Your task to perform on an android device: show emergency info Image 0: 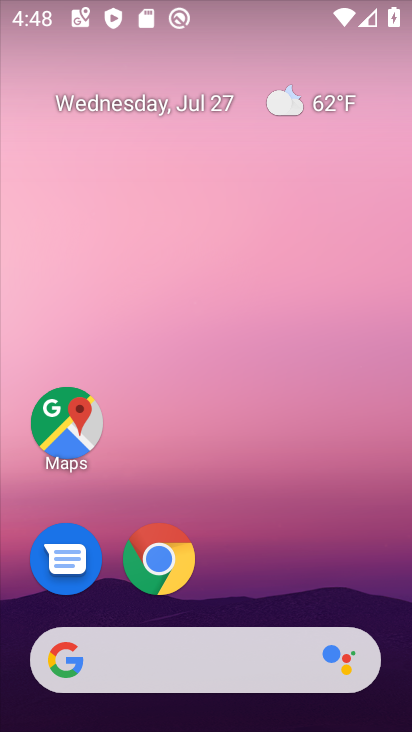
Step 0: drag from (300, 400) to (291, 3)
Your task to perform on an android device: show emergency info Image 1: 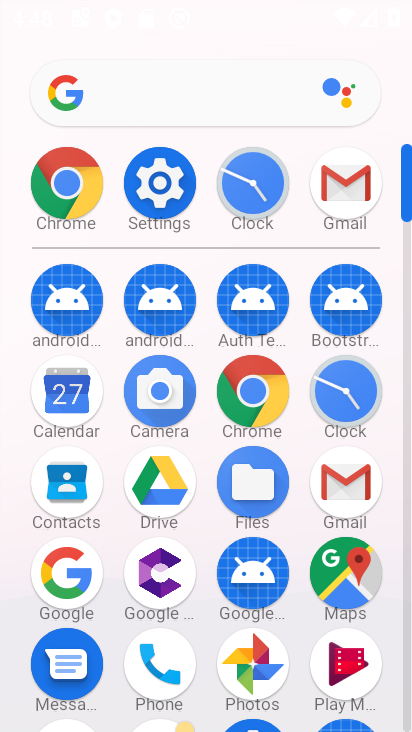
Step 1: click (159, 188)
Your task to perform on an android device: show emergency info Image 2: 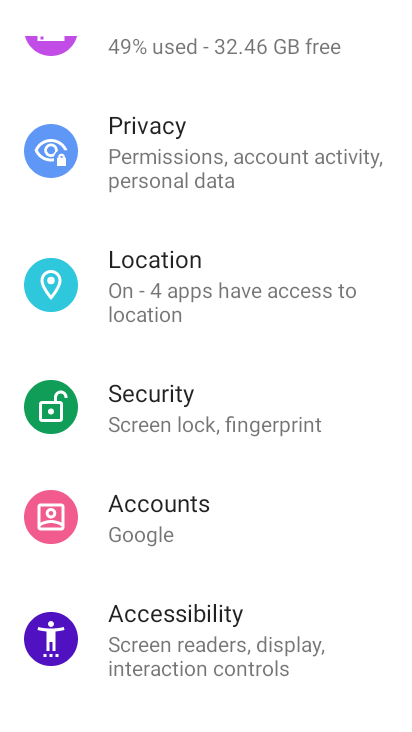
Step 2: drag from (191, 655) to (191, 61)
Your task to perform on an android device: show emergency info Image 3: 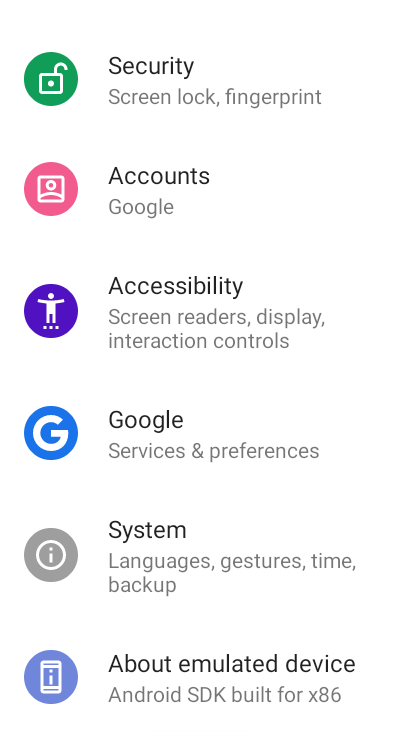
Step 3: drag from (148, 625) to (212, 71)
Your task to perform on an android device: show emergency info Image 4: 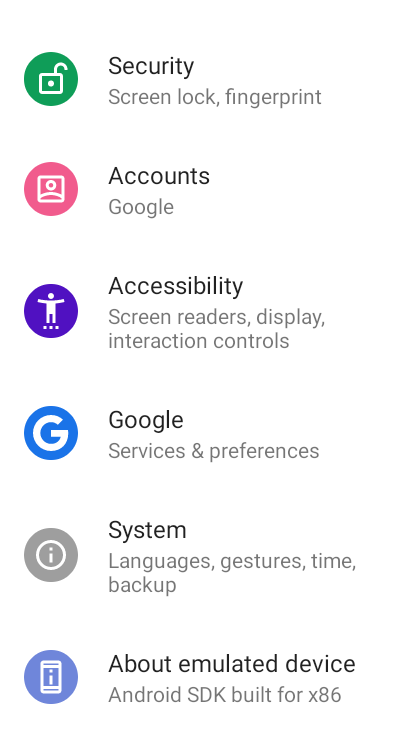
Step 4: drag from (202, 640) to (285, 166)
Your task to perform on an android device: show emergency info Image 5: 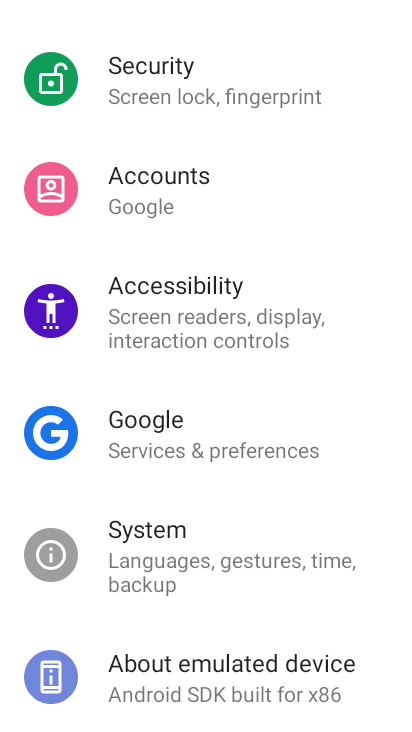
Step 5: click (242, 708)
Your task to perform on an android device: show emergency info Image 6: 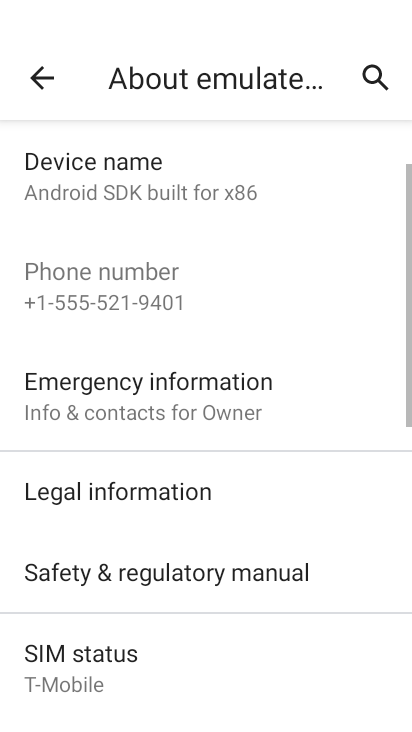
Step 6: click (169, 381)
Your task to perform on an android device: show emergency info Image 7: 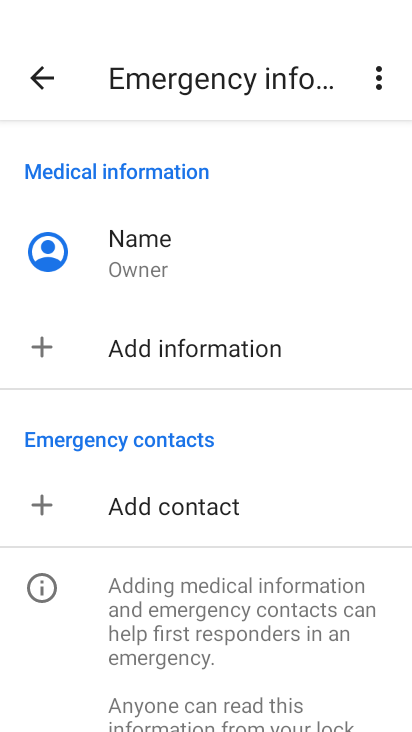
Step 7: task complete